Your task to perform on an android device: Search for pizza restaurants on Maps Image 0: 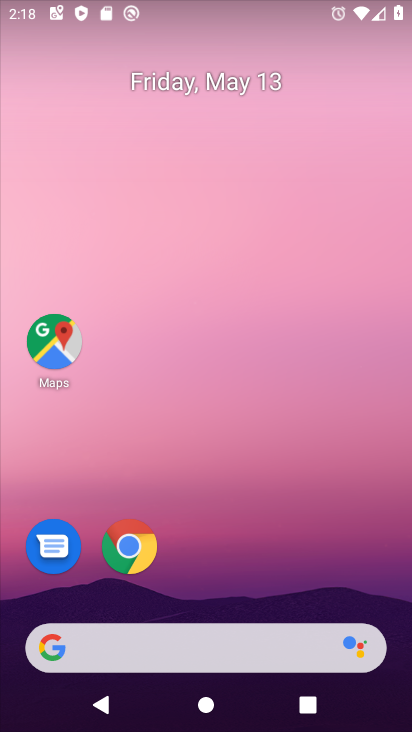
Step 0: click (48, 334)
Your task to perform on an android device: Search for pizza restaurants on Maps Image 1: 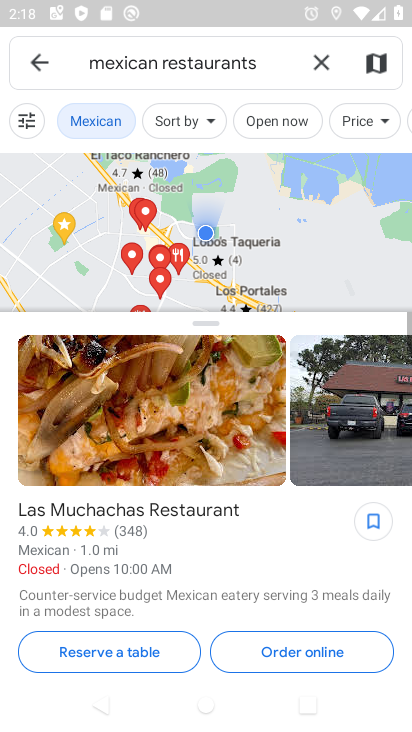
Step 1: click (274, 52)
Your task to perform on an android device: Search for pizza restaurants on Maps Image 2: 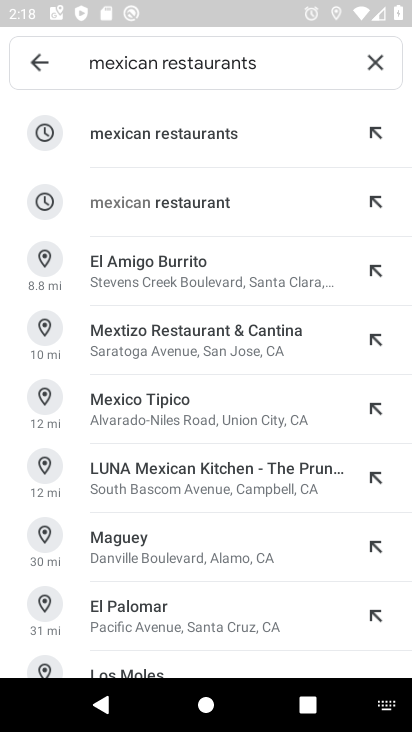
Step 2: click (376, 53)
Your task to perform on an android device: Search for pizza restaurants on Maps Image 3: 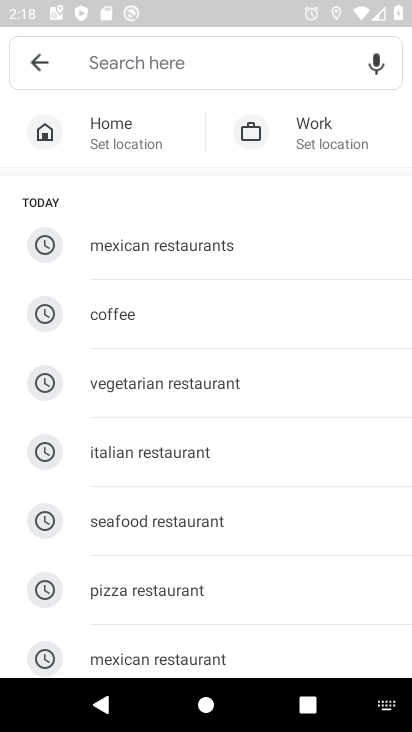
Step 3: type "pizza restaurants"
Your task to perform on an android device: Search for pizza restaurants on Maps Image 4: 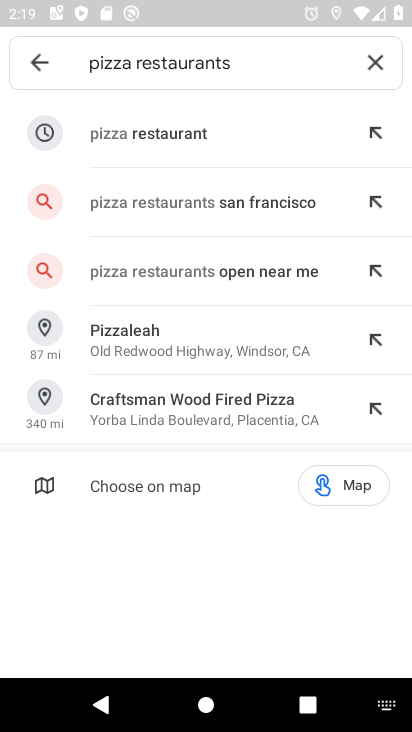
Step 4: press enter
Your task to perform on an android device: Search for pizza restaurants on Maps Image 5: 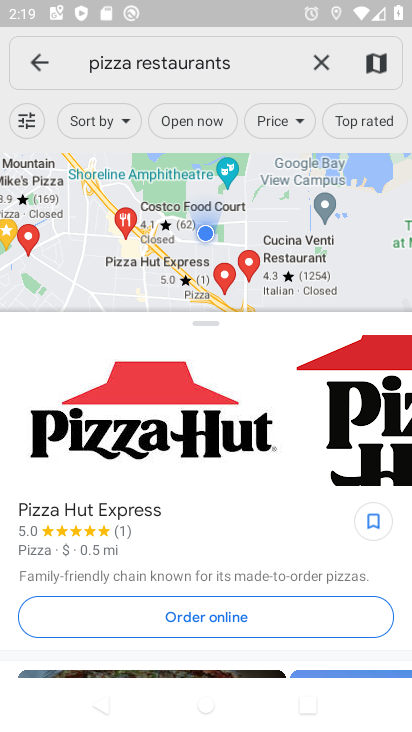
Step 5: task complete